Your task to perform on an android device: change notifications settings Image 0: 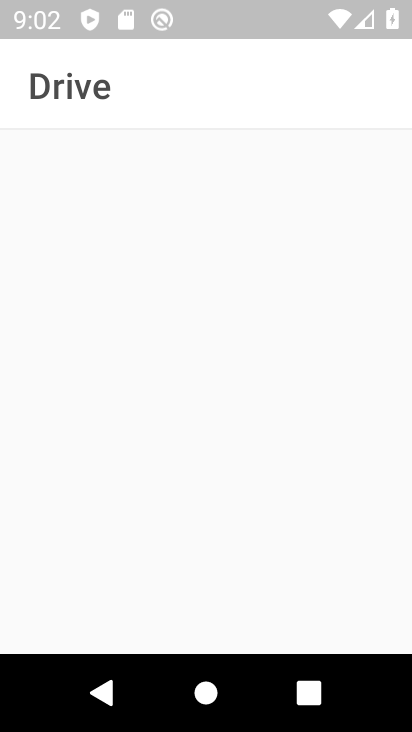
Step 0: press back button
Your task to perform on an android device: change notifications settings Image 1: 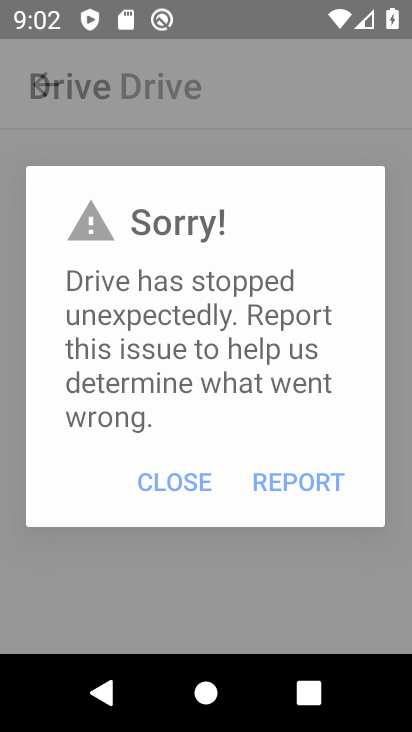
Step 1: press back button
Your task to perform on an android device: change notifications settings Image 2: 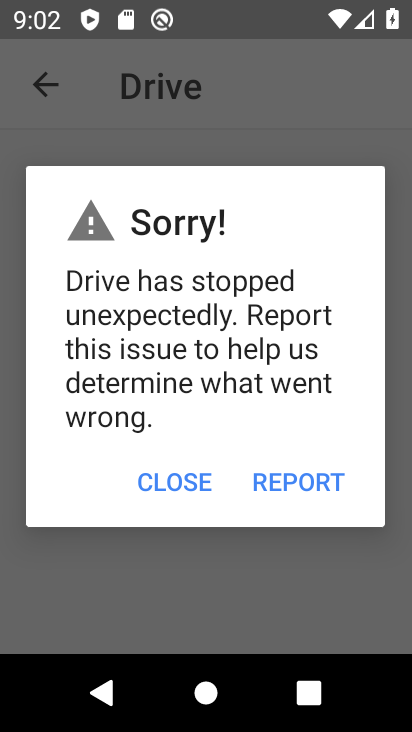
Step 2: click (318, 467)
Your task to perform on an android device: change notifications settings Image 3: 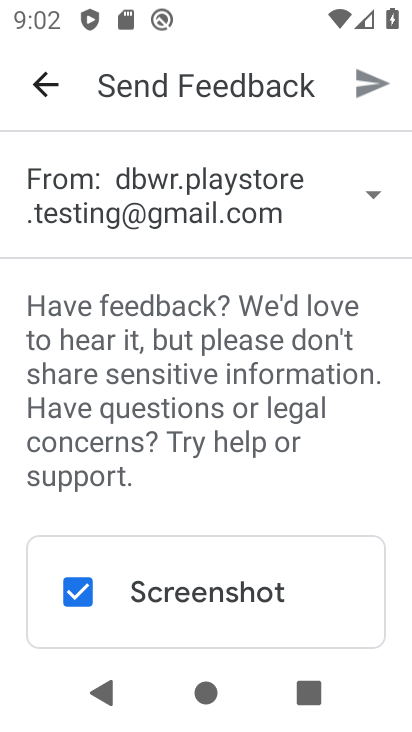
Step 3: press back button
Your task to perform on an android device: change notifications settings Image 4: 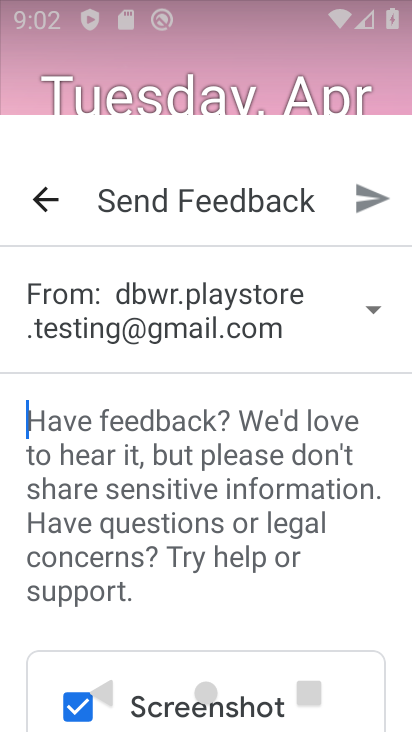
Step 4: press back button
Your task to perform on an android device: change notifications settings Image 5: 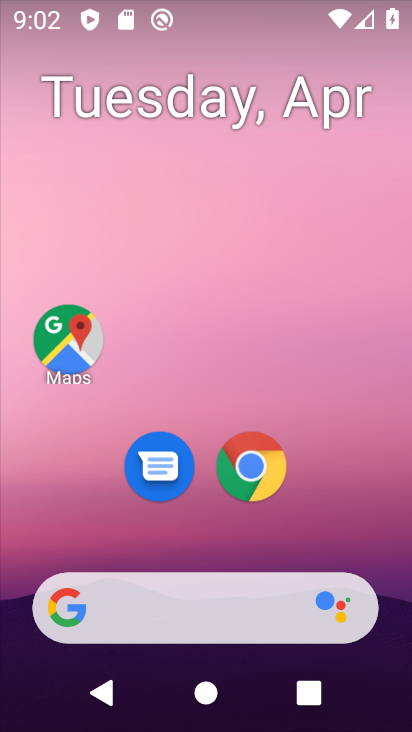
Step 5: press back button
Your task to perform on an android device: change notifications settings Image 6: 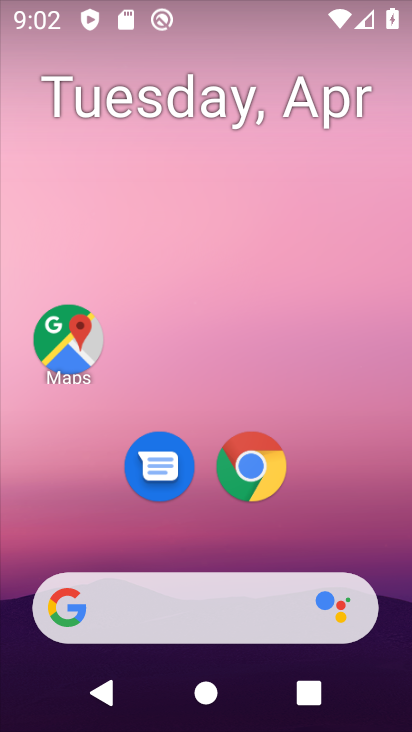
Step 6: drag from (276, 541) to (312, 28)
Your task to perform on an android device: change notifications settings Image 7: 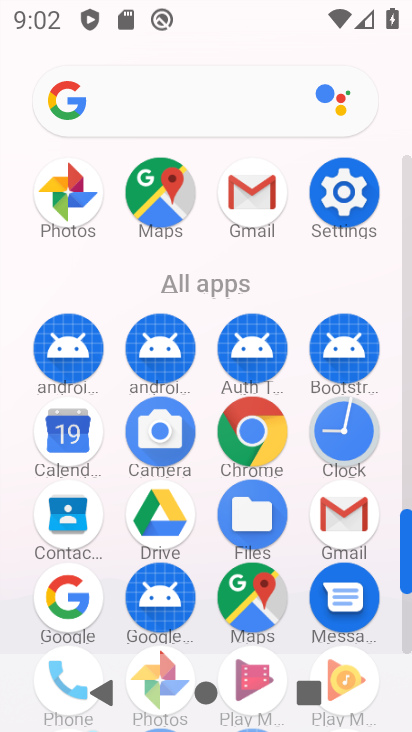
Step 7: click (366, 179)
Your task to perform on an android device: change notifications settings Image 8: 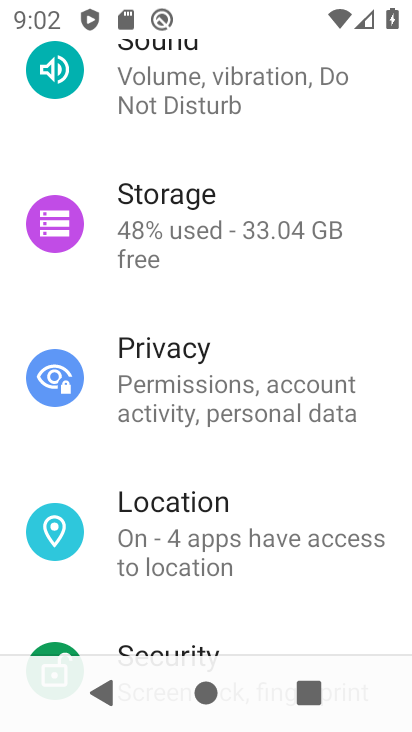
Step 8: drag from (257, 212) to (241, 581)
Your task to perform on an android device: change notifications settings Image 9: 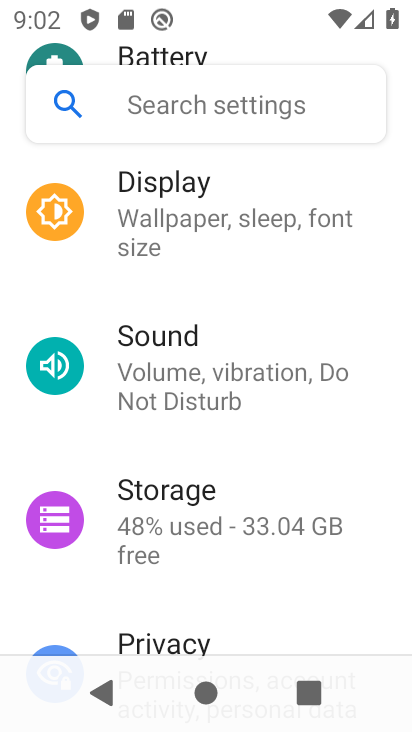
Step 9: drag from (239, 257) to (208, 597)
Your task to perform on an android device: change notifications settings Image 10: 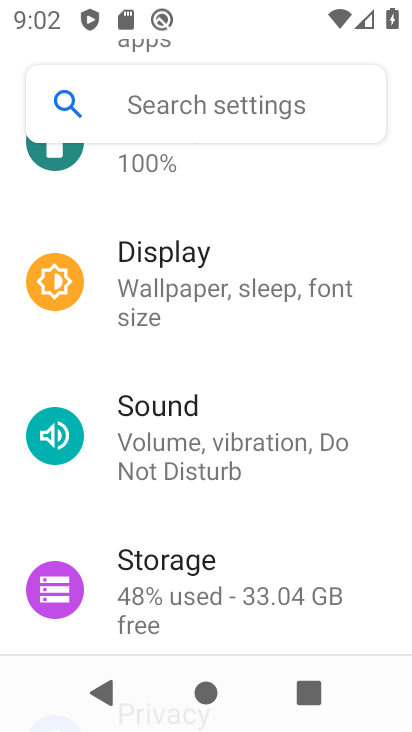
Step 10: drag from (236, 281) to (233, 601)
Your task to perform on an android device: change notifications settings Image 11: 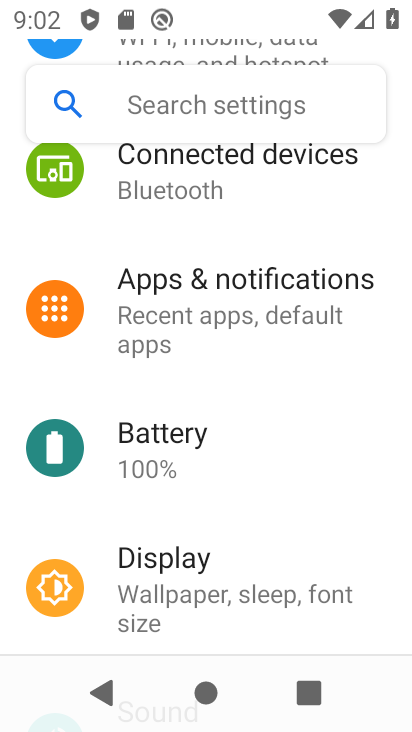
Step 11: drag from (235, 247) to (229, 558)
Your task to perform on an android device: change notifications settings Image 12: 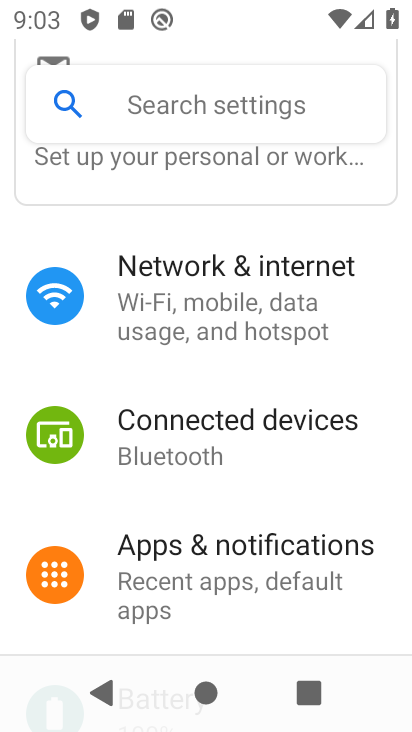
Step 12: click (214, 590)
Your task to perform on an android device: change notifications settings Image 13: 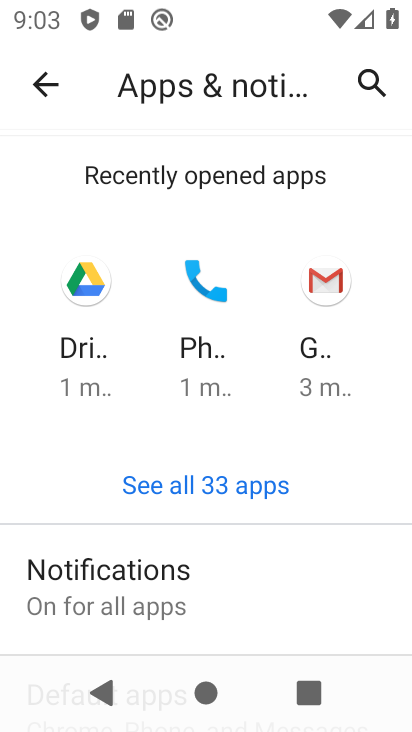
Step 13: drag from (198, 597) to (248, 342)
Your task to perform on an android device: change notifications settings Image 14: 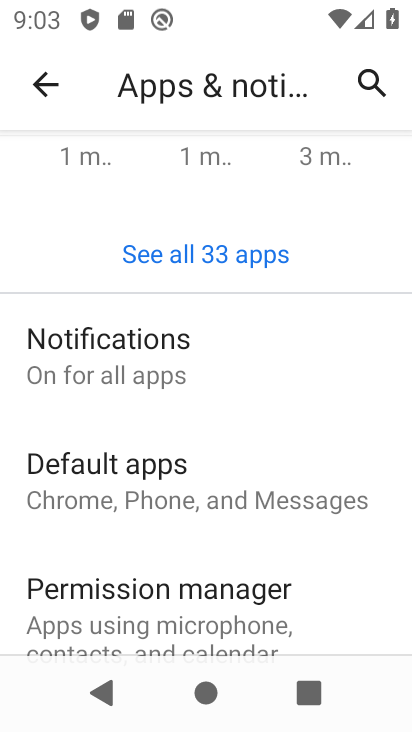
Step 14: click (228, 369)
Your task to perform on an android device: change notifications settings Image 15: 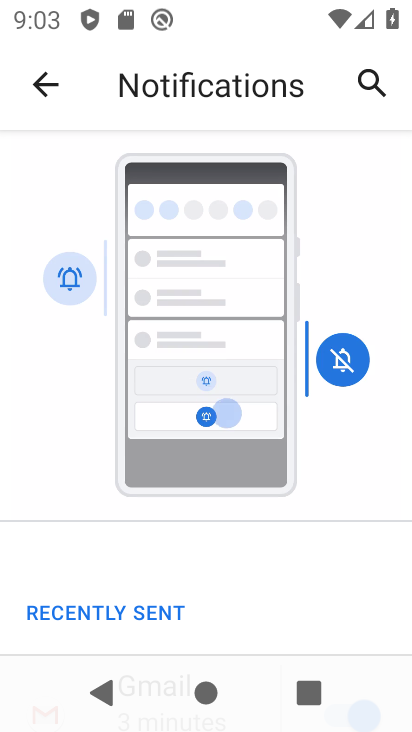
Step 15: drag from (216, 528) to (271, 221)
Your task to perform on an android device: change notifications settings Image 16: 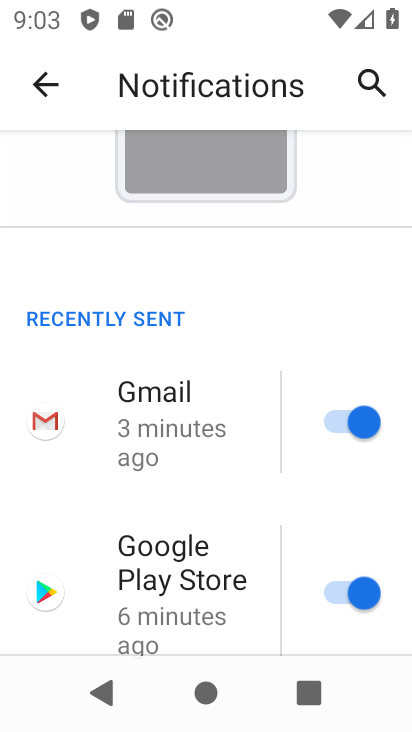
Step 16: drag from (271, 557) to (303, 93)
Your task to perform on an android device: change notifications settings Image 17: 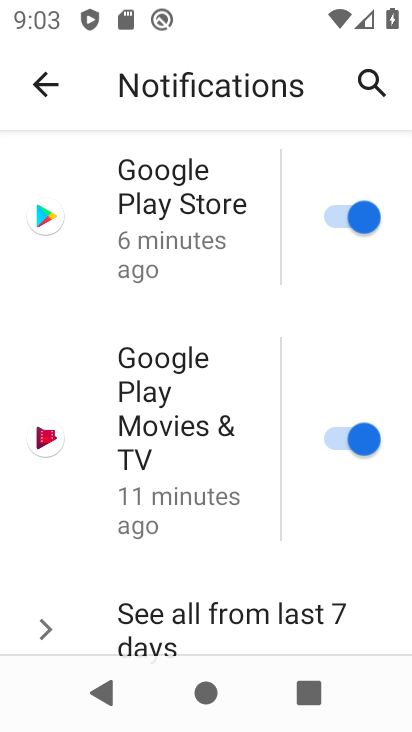
Step 17: drag from (202, 540) to (224, 344)
Your task to perform on an android device: change notifications settings Image 18: 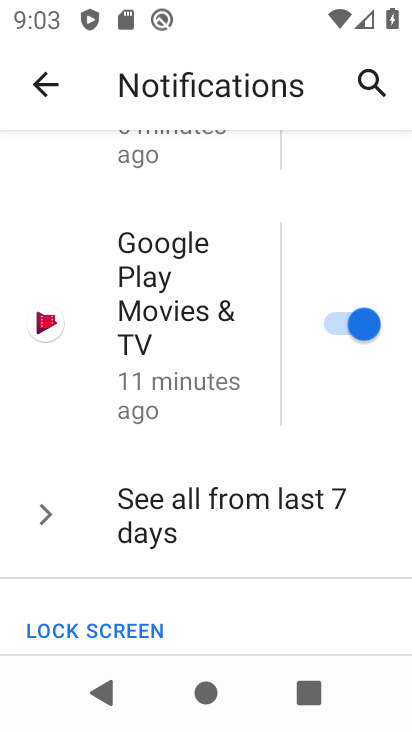
Step 18: drag from (156, 592) to (214, 309)
Your task to perform on an android device: change notifications settings Image 19: 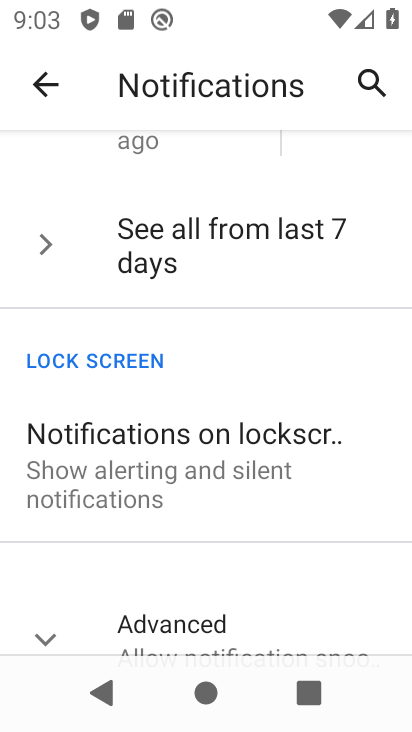
Step 19: drag from (179, 553) to (262, 294)
Your task to perform on an android device: change notifications settings Image 20: 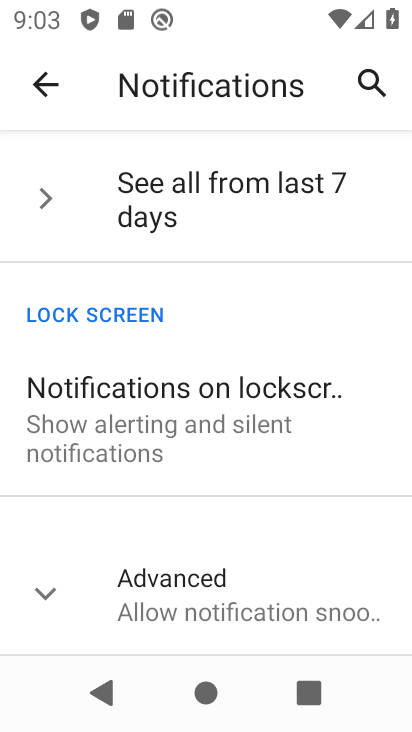
Step 20: click (213, 566)
Your task to perform on an android device: change notifications settings Image 21: 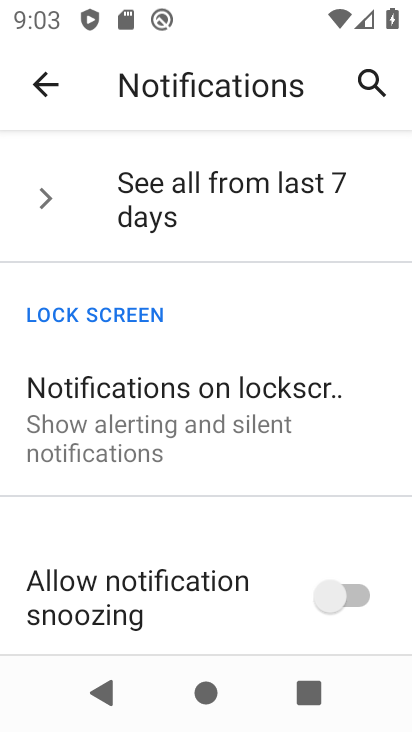
Step 21: click (293, 576)
Your task to perform on an android device: change notifications settings Image 22: 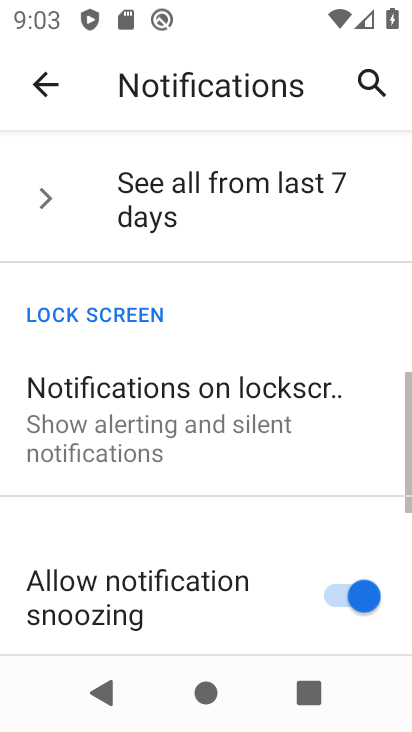
Step 22: task complete